Your task to perform on an android device: move a message to another label in the gmail app Image 0: 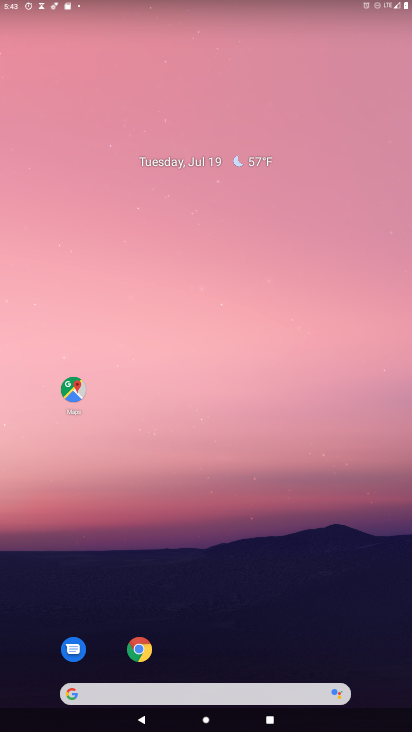
Step 0: drag from (186, 663) to (217, 139)
Your task to perform on an android device: move a message to another label in the gmail app Image 1: 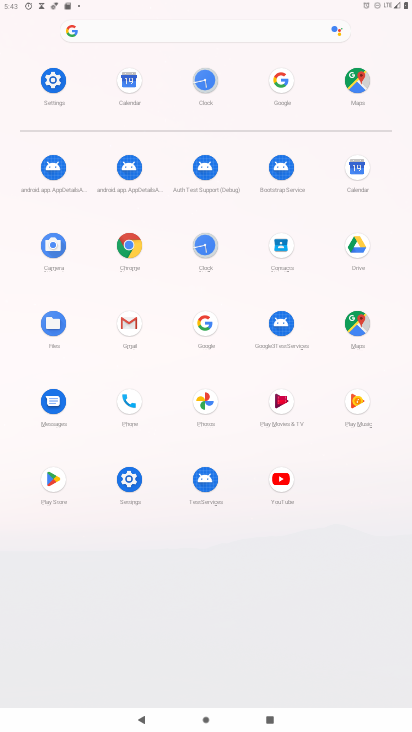
Step 1: click (131, 313)
Your task to perform on an android device: move a message to another label in the gmail app Image 2: 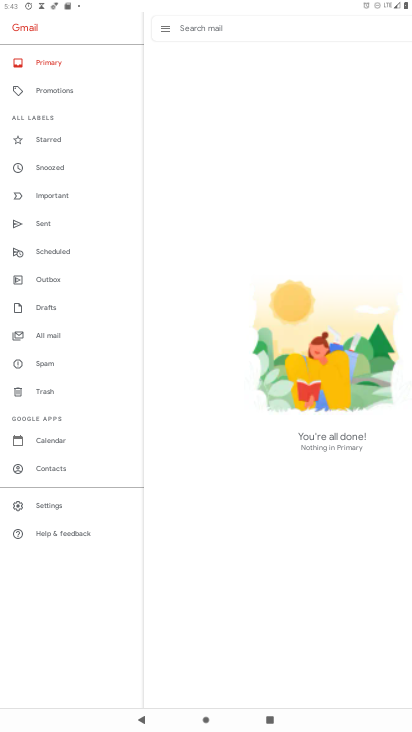
Step 2: click (46, 334)
Your task to perform on an android device: move a message to another label in the gmail app Image 3: 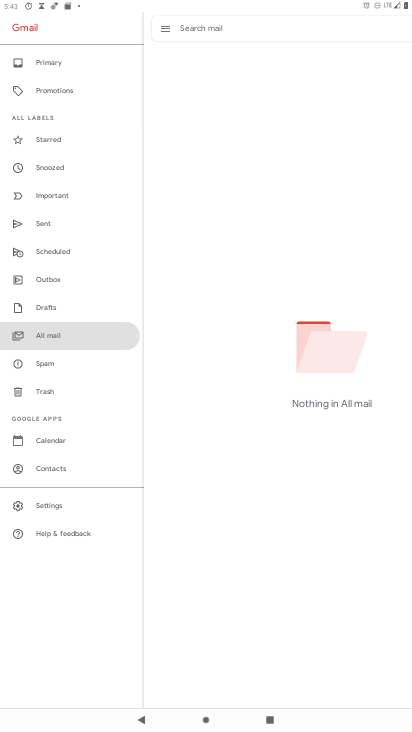
Step 3: task complete